Your task to perform on an android device: Open Android settings Image 0: 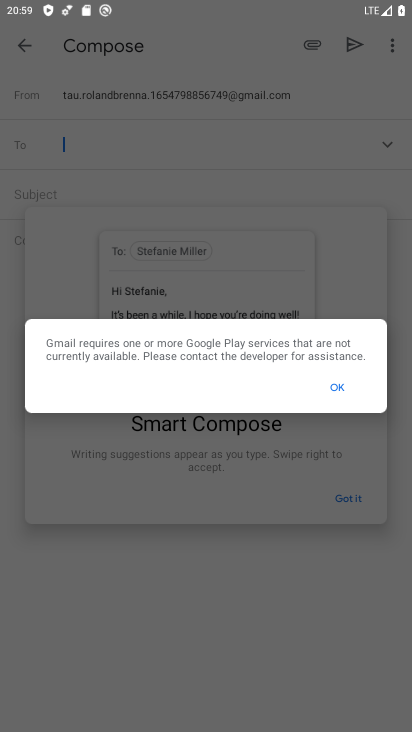
Step 0: press home button
Your task to perform on an android device: Open Android settings Image 1: 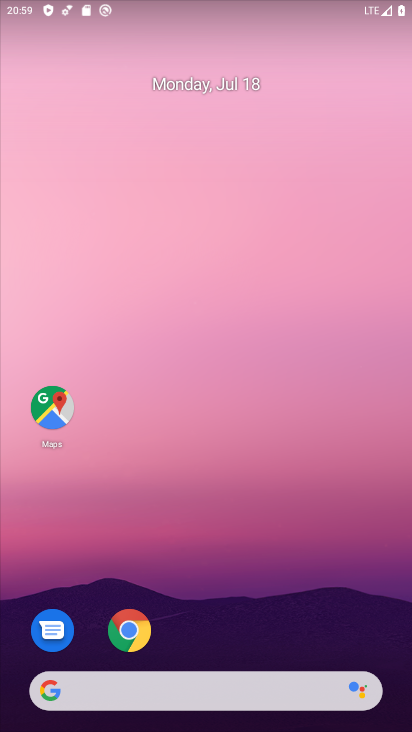
Step 1: drag from (211, 627) to (231, 317)
Your task to perform on an android device: Open Android settings Image 2: 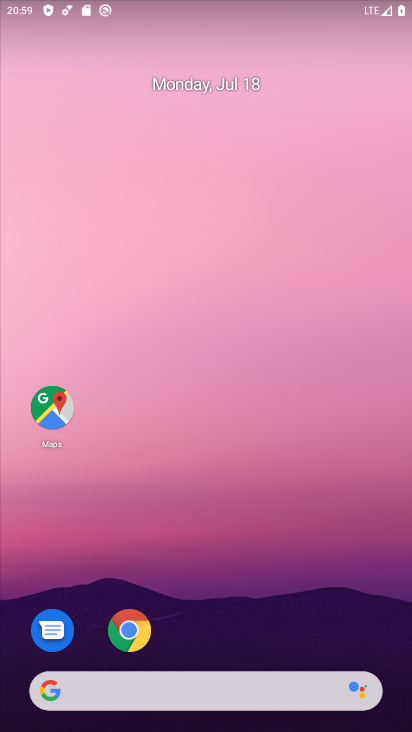
Step 2: drag from (199, 631) to (243, 262)
Your task to perform on an android device: Open Android settings Image 3: 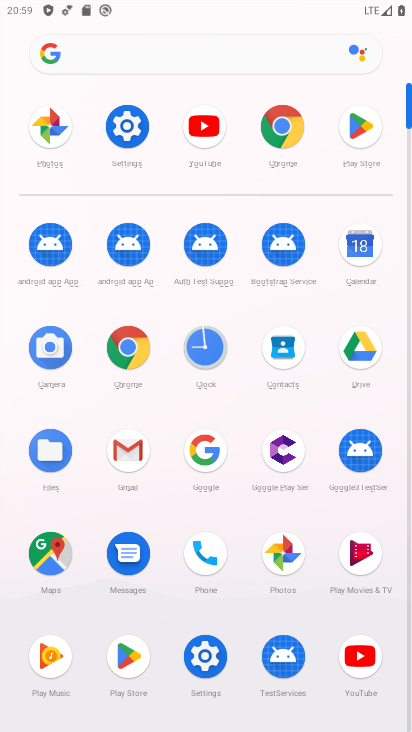
Step 3: click (128, 105)
Your task to perform on an android device: Open Android settings Image 4: 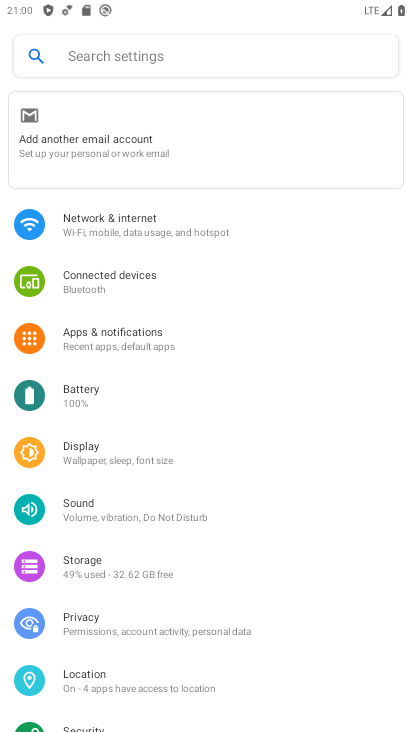
Step 4: task complete